Your task to perform on an android device: Open Yahoo.com Image 0: 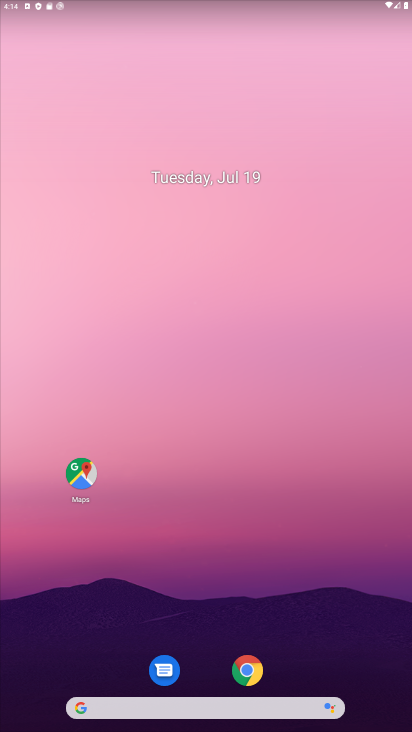
Step 0: drag from (183, 696) to (251, 210)
Your task to perform on an android device: Open Yahoo.com Image 1: 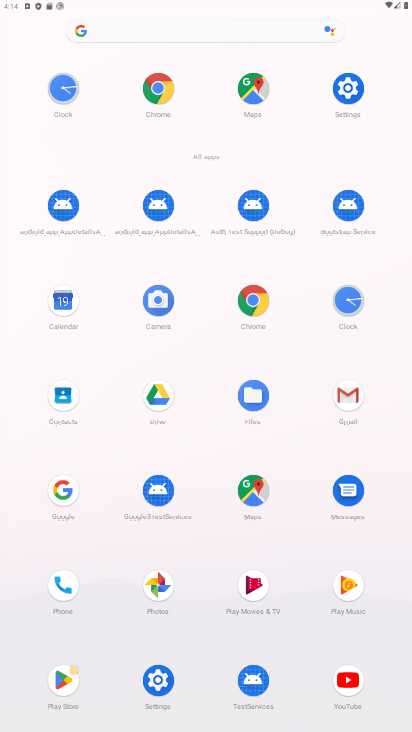
Step 1: click (255, 304)
Your task to perform on an android device: Open Yahoo.com Image 2: 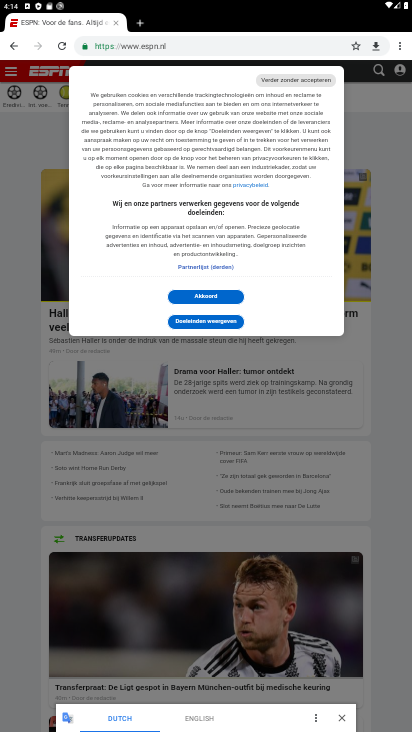
Step 2: click (196, 47)
Your task to perform on an android device: Open Yahoo.com Image 3: 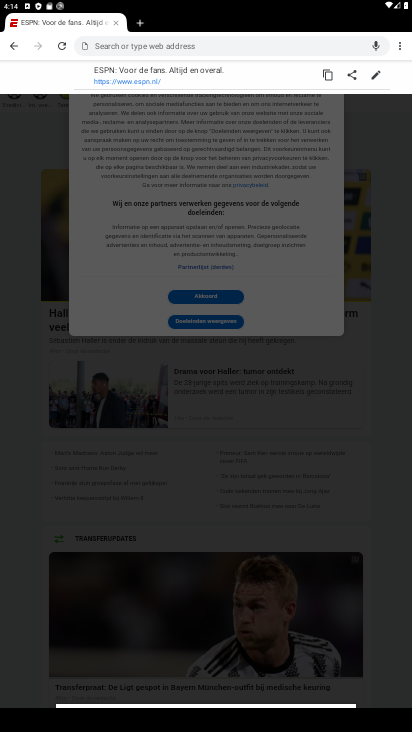
Step 3: type "yahoo.com"
Your task to perform on an android device: Open Yahoo.com Image 4: 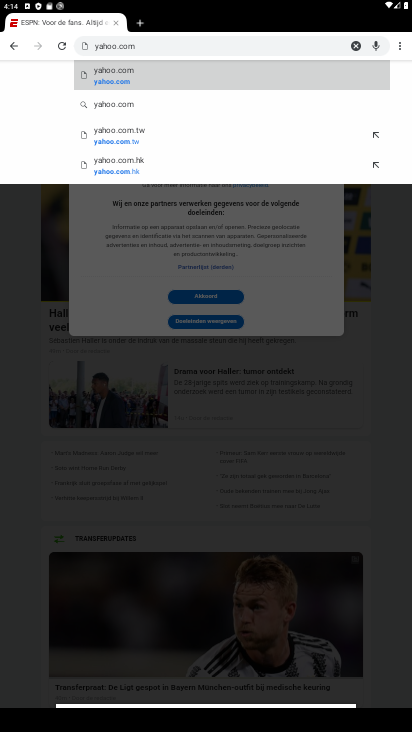
Step 4: click (157, 79)
Your task to perform on an android device: Open Yahoo.com Image 5: 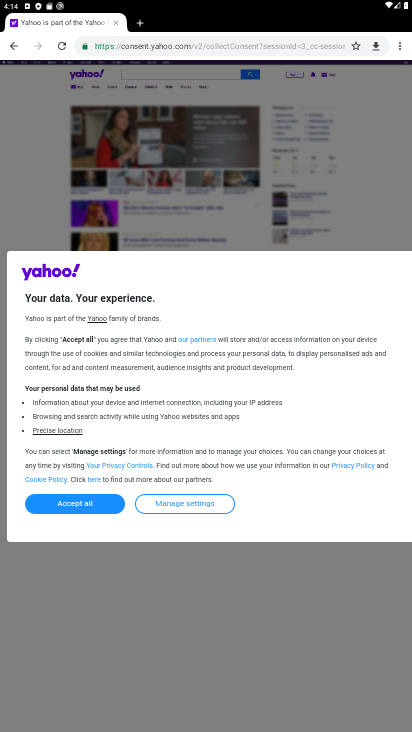
Step 5: task complete